Your task to perform on an android device: Go to Android settings Image 0: 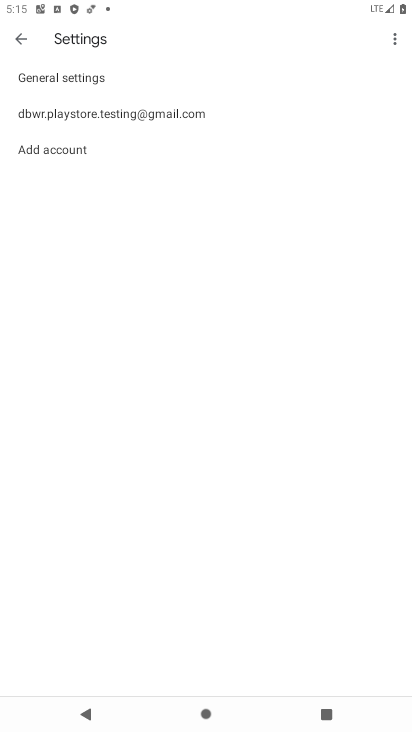
Step 0: press home button
Your task to perform on an android device: Go to Android settings Image 1: 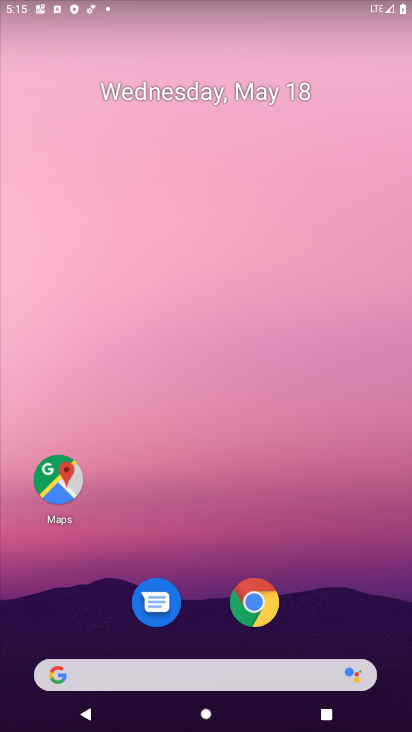
Step 1: drag from (229, 643) to (257, 0)
Your task to perform on an android device: Go to Android settings Image 2: 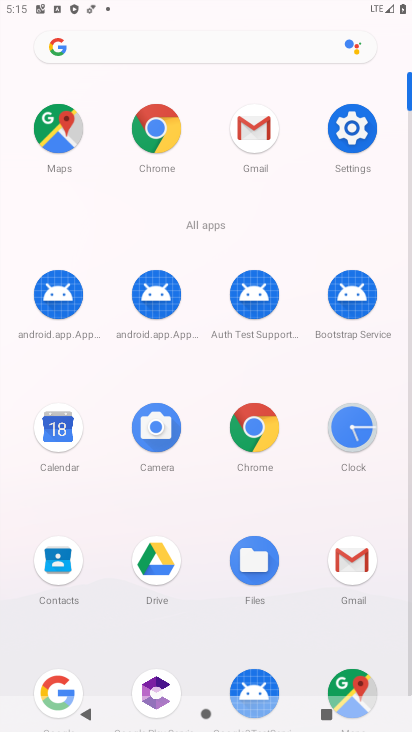
Step 2: click (344, 136)
Your task to perform on an android device: Go to Android settings Image 3: 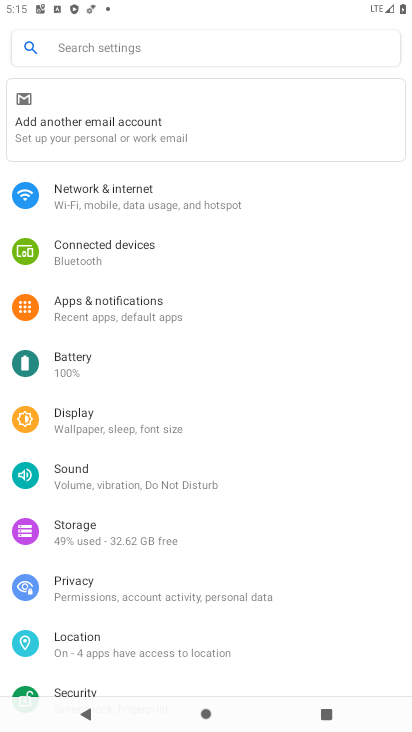
Step 3: drag from (250, 647) to (308, 14)
Your task to perform on an android device: Go to Android settings Image 4: 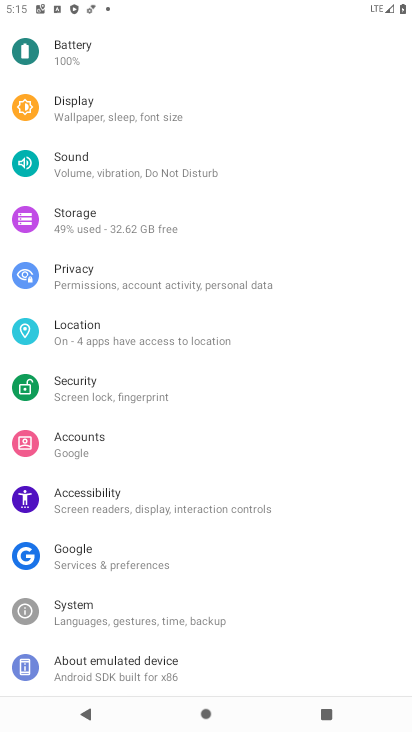
Step 4: click (178, 666)
Your task to perform on an android device: Go to Android settings Image 5: 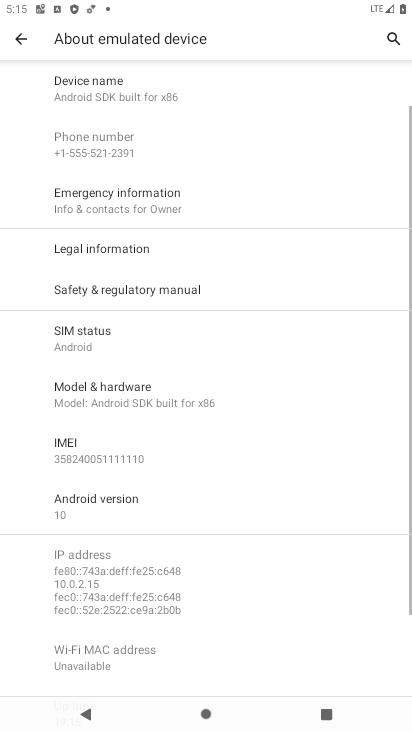
Step 5: click (141, 493)
Your task to perform on an android device: Go to Android settings Image 6: 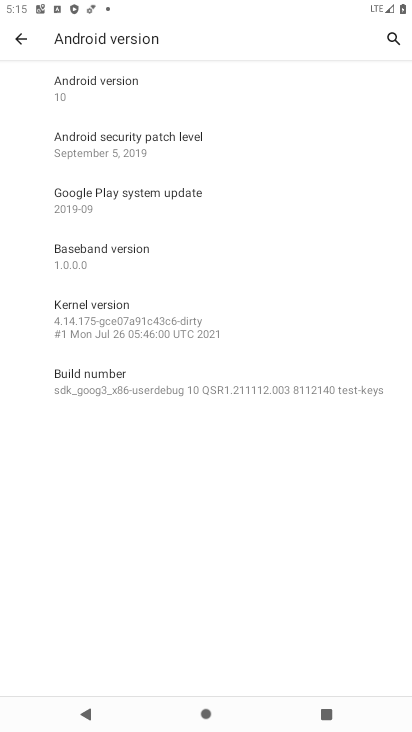
Step 6: task complete